Your task to perform on an android device: Show me the best rated vacuum on Walmart. Image 0: 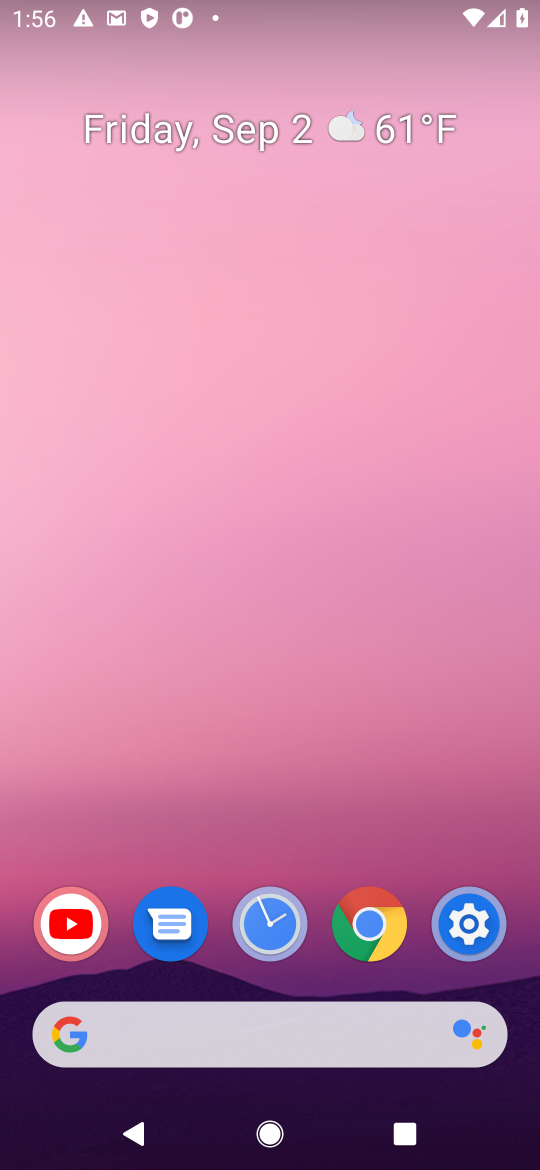
Step 0: press home button
Your task to perform on an android device: Show me the best rated vacuum on Walmart. Image 1: 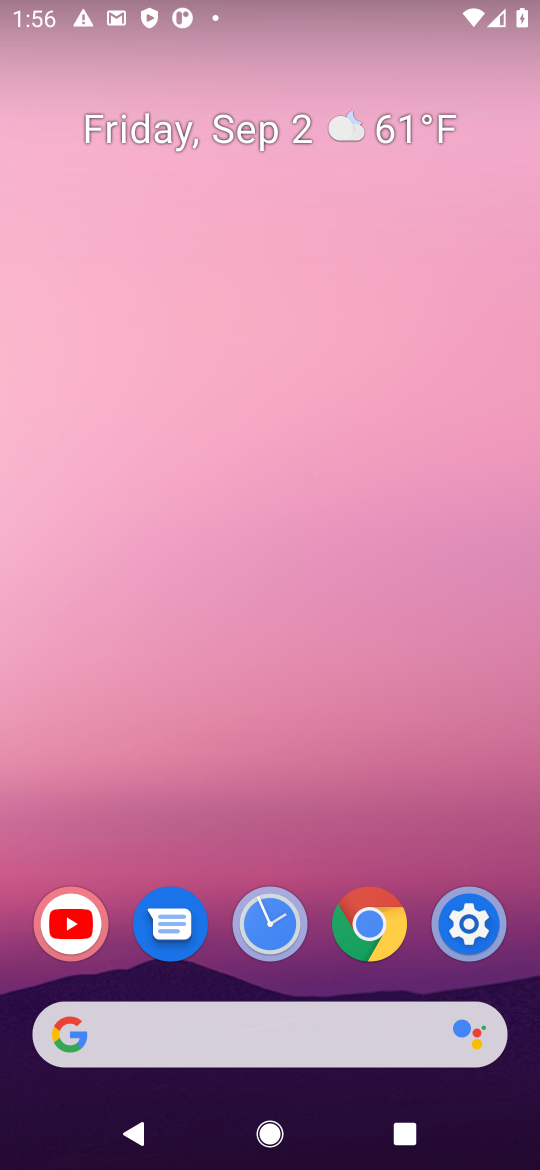
Step 1: click (364, 1041)
Your task to perform on an android device: Show me the best rated vacuum on Walmart. Image 2: 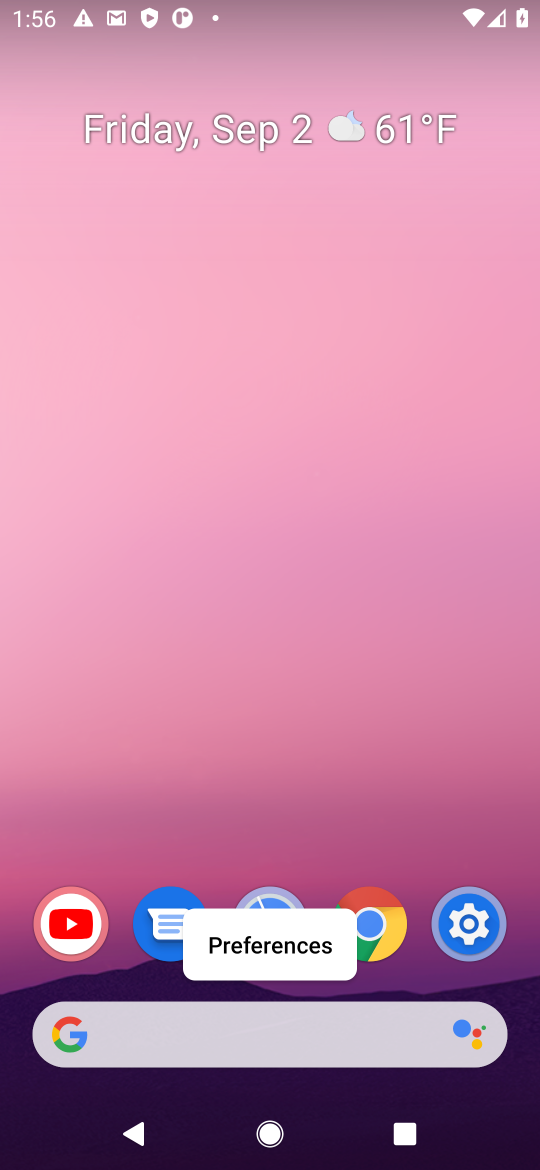
Step 2: click (364, 1041)
Your task to perform on an android device: Show me the best rated vacuum on Walmart. Image 3: 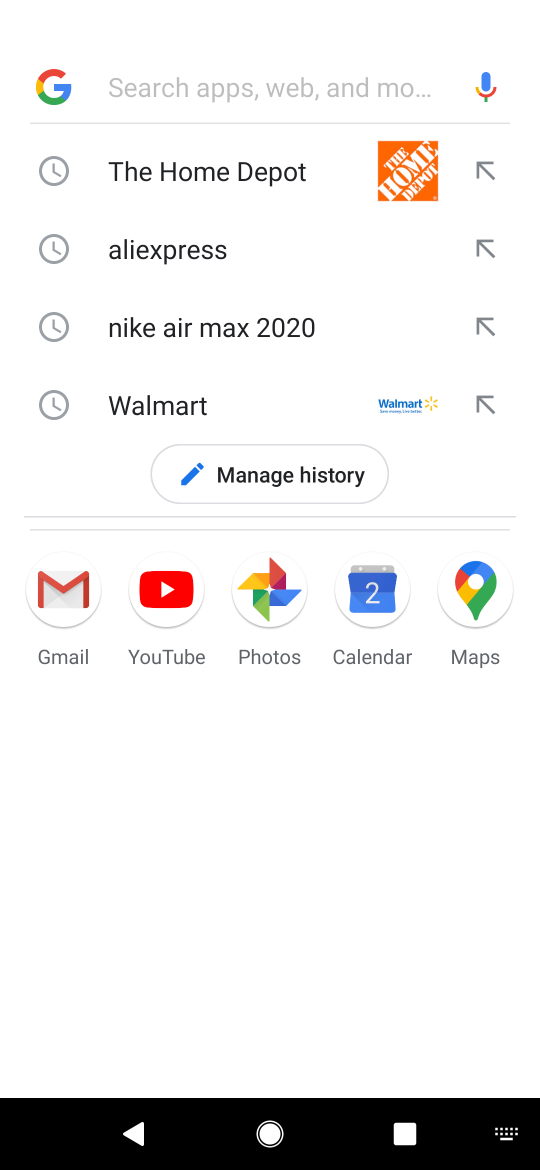
Step 3: press enter
Your task to perform on an android device: Show me the best rated vacuum on Walmart. Image 4: 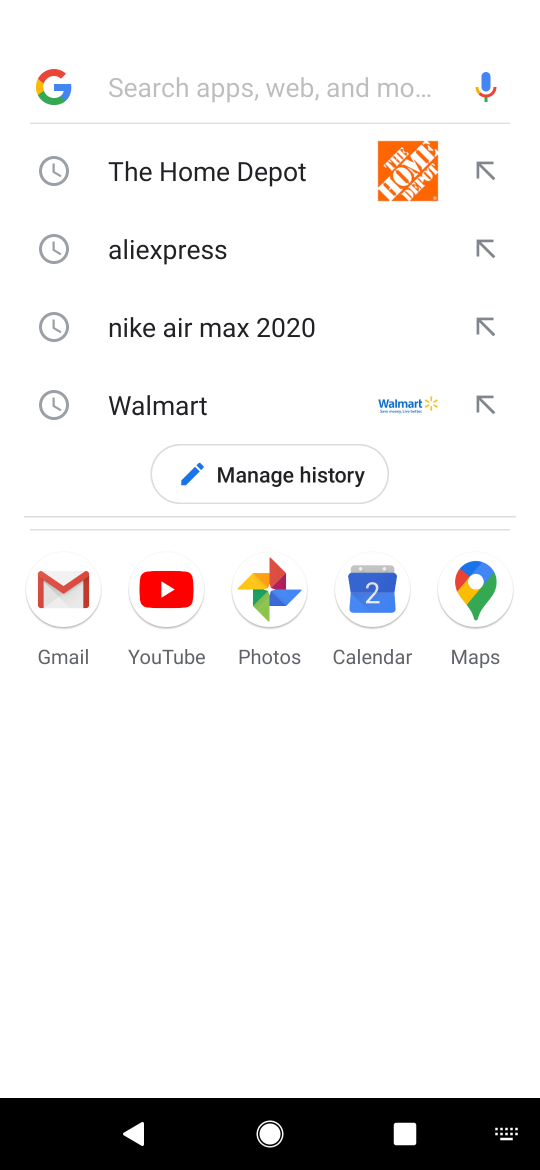
Step 4: type "walmart"
Your task to perform on an android device: Show me the best rated vacuum on Walmart. Image 5: 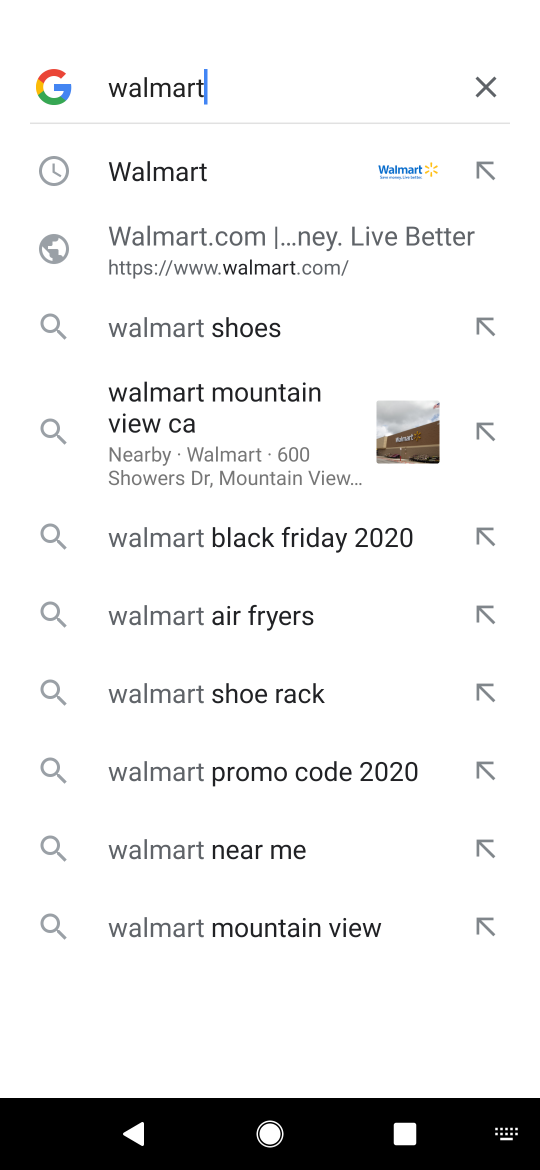
Step 5: click (203, 164)
Your task to perform on an android device: Show me the best rated vacuum on Walmart. Image 6: 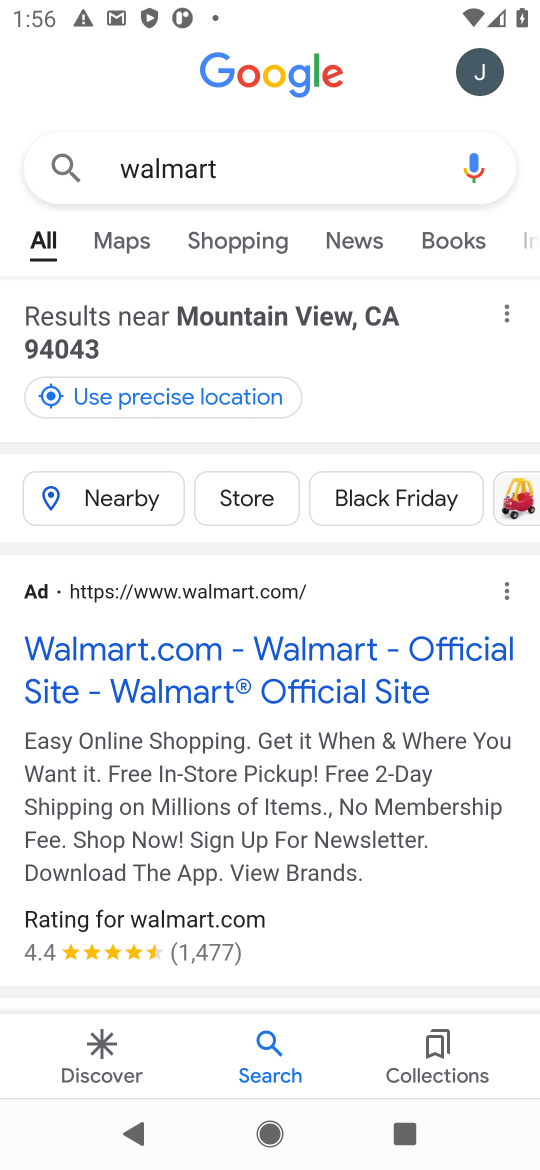
Step 6: click (307, 657)
Your task to perform on an android device: Show me the best rated vacuum on Walmart. Image 7: 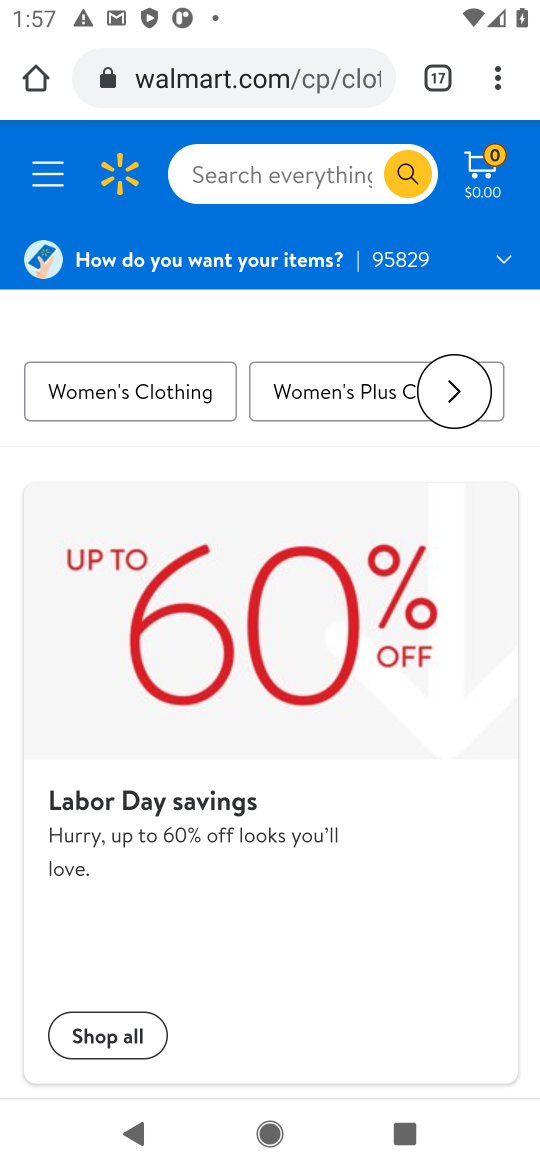
Step 7: click (253, 164)
Your task to perform on an android device: Show me the best rated vacuum on Walmart. Image 8: 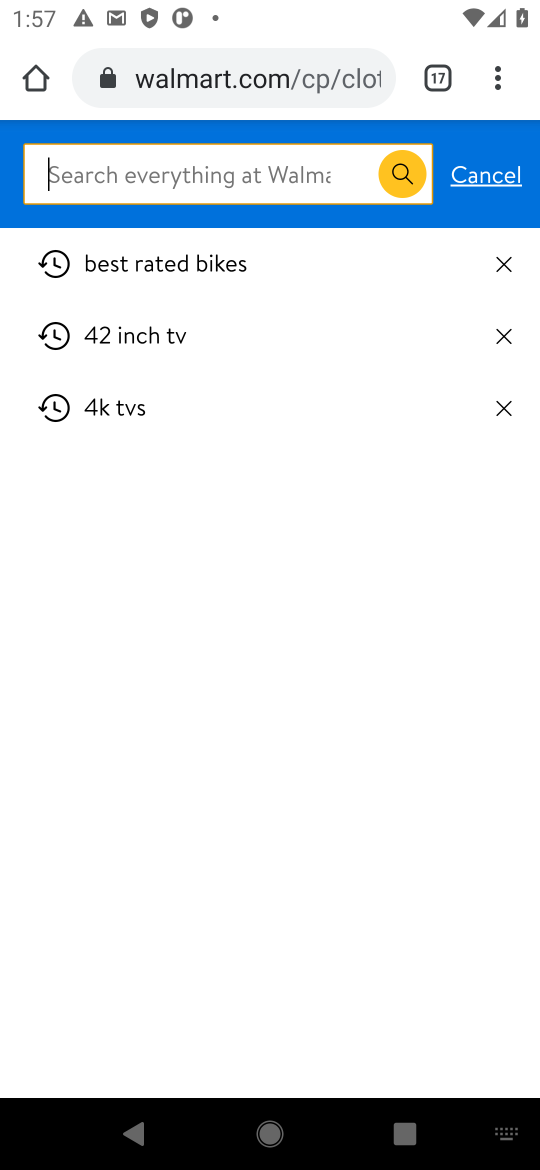
Step 8: type "best rated vacuum"
Your task to perform on an android device: Show me the best rated vacuum on Walmart. Image 9: 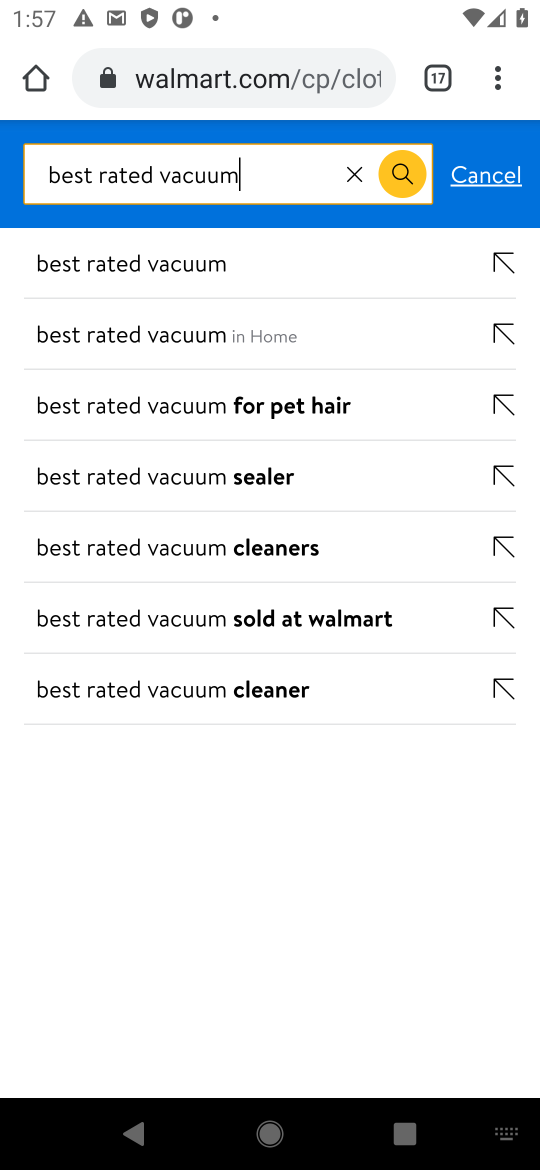
Step 9: click (228, 260)
Your task to perform on an android device: Show me the best rated vacuum on Walmart. Image 10: 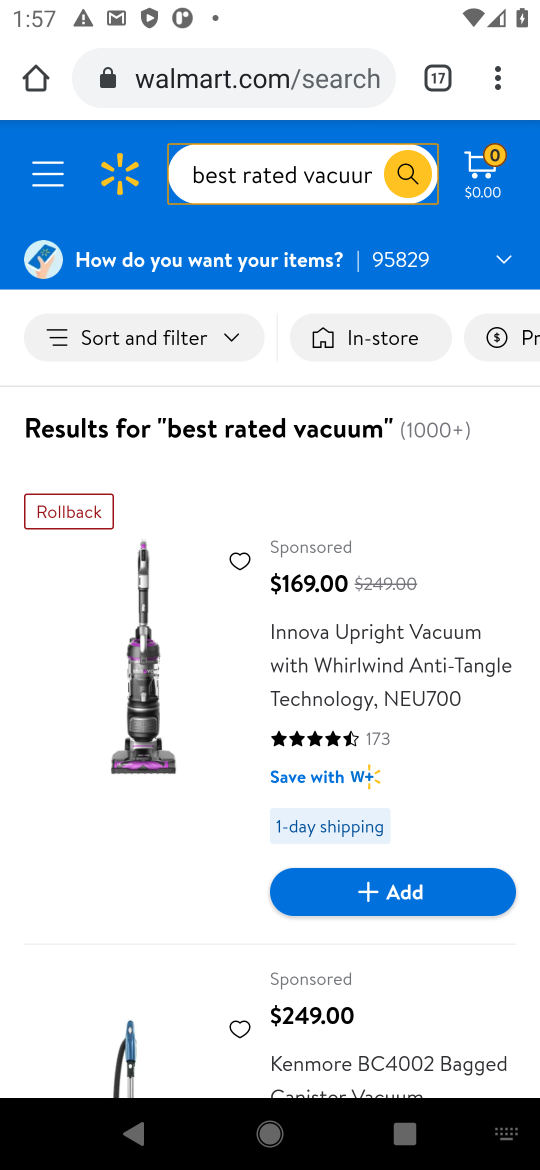
Step 10: task complete